Your task to perform on an android device: open wifi settings Image 0: 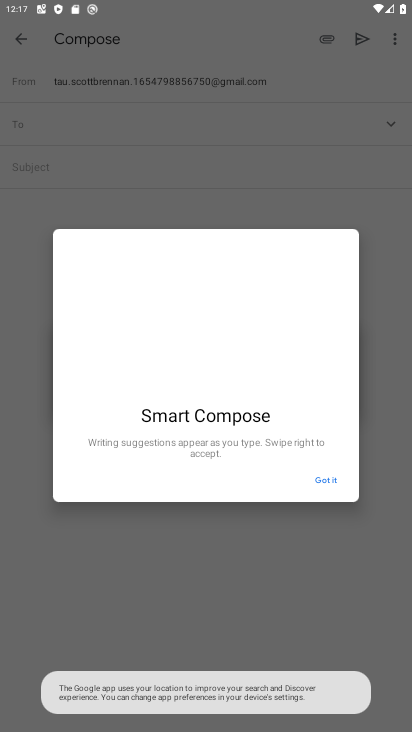
Step 0: press home button
Your task to perform on an android device: open wifi settings Image 1: 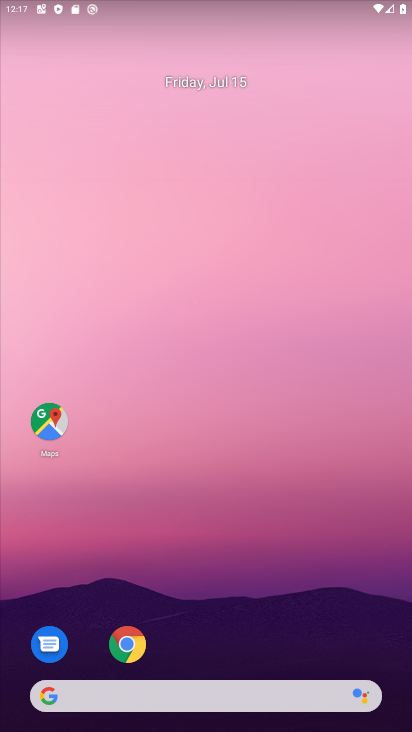
Step 1: drag from (258, 6) to (247, 387)
Your task to perform on an android device: open wifi settings Image 2: 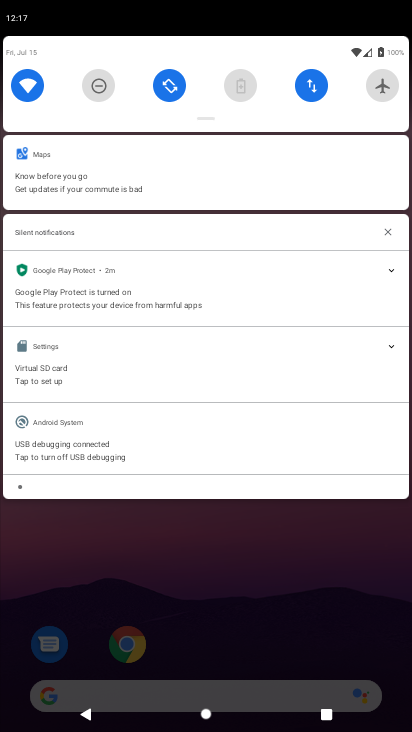
Step 2: drag from (202, 10) to (294, 610)
Your task to perform on an android device: open wifi settings Image 3: 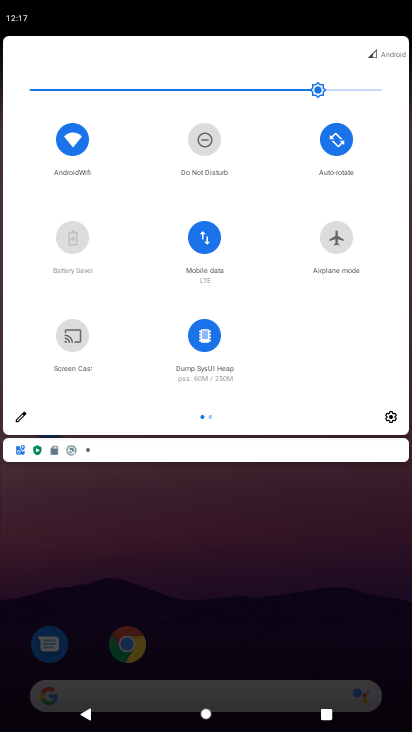
Step 3: drag from (57, 145) to (90, 136)
Your task to perform on an android device: open wifi settings Image 4: 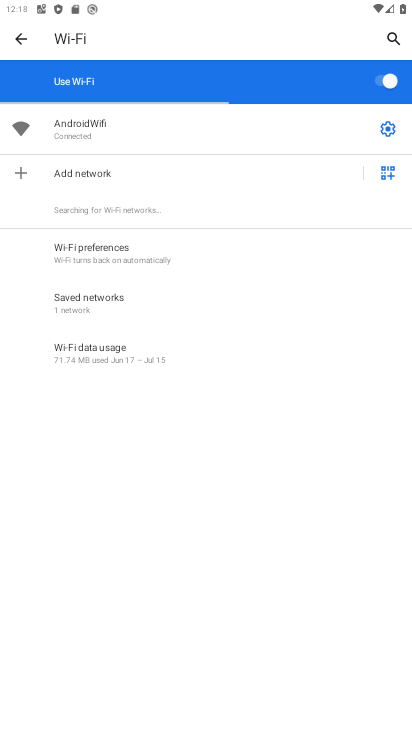
Step 4: click (388, 132)
Your task to perform on an android device: open wifi settings Image 5: 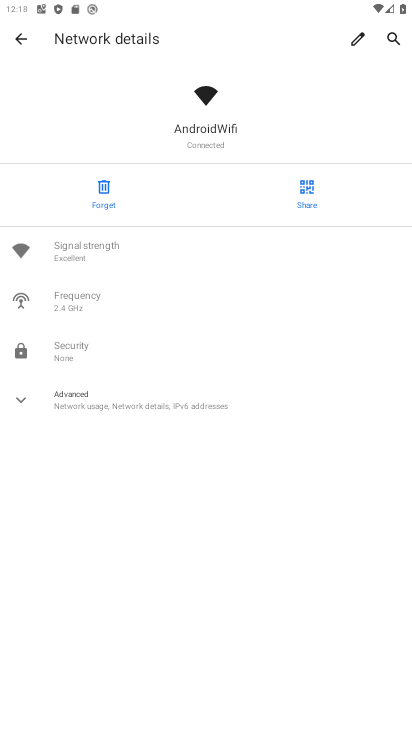
Step 5: task complete